Your task to perform on an android device: delete the emails in spam in the gmail app Image 0: 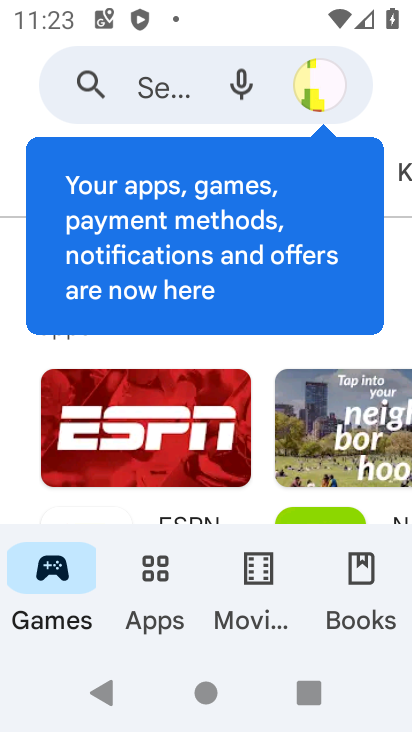
Step 0: press home button
Your task to perform on an android device: delete the emails in spam in the gmail app Image 1: 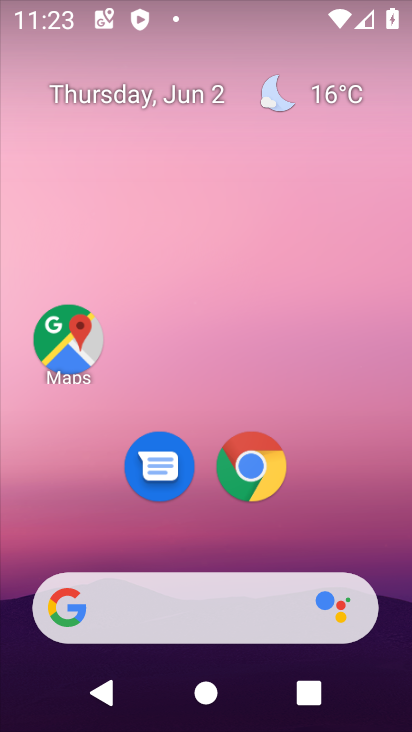
Step 1: drag from (213, 557) to (279, 219)
Your task to perform on an android device: delete the emails in spam in the gmail app Image 2: 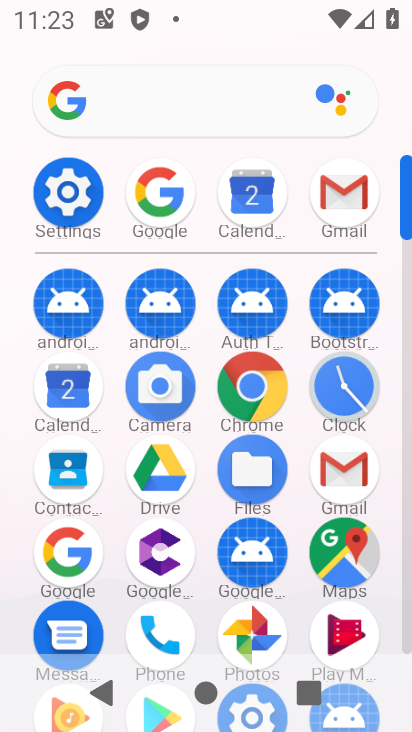
Step 2: click (315, 193)
Your task to perform on an android device: delete the emails in spam in the gmail app Image 3: 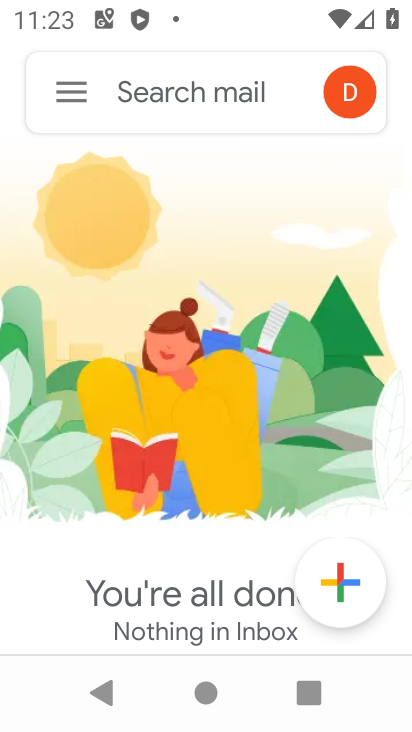
Step 3: click (64, 80)
Your task to perform on an android device: delete the emails in spam in the gmail app Image 4: 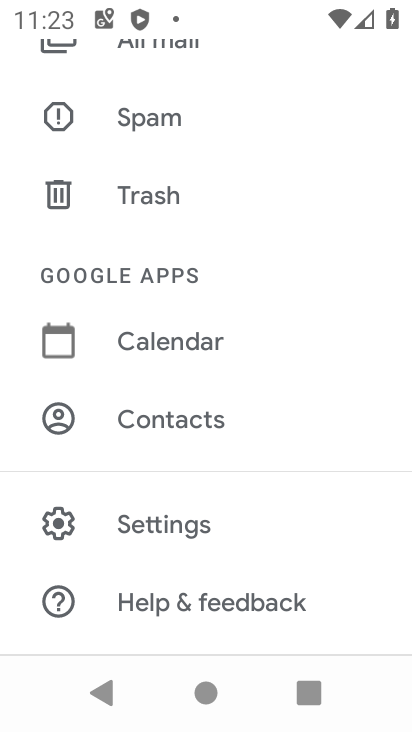
Step 4: click (196, 518)
Your task to perform on an android device: delete the emails in spam in the gmail app Image 5: 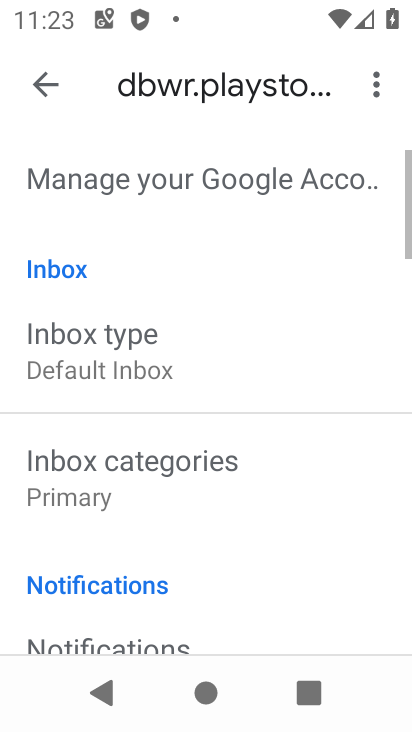
Step 5: drag from (239, 569) to (216, 290)
Your task to perform on an android device: delete the emails in spam in the gmail app Image 6: 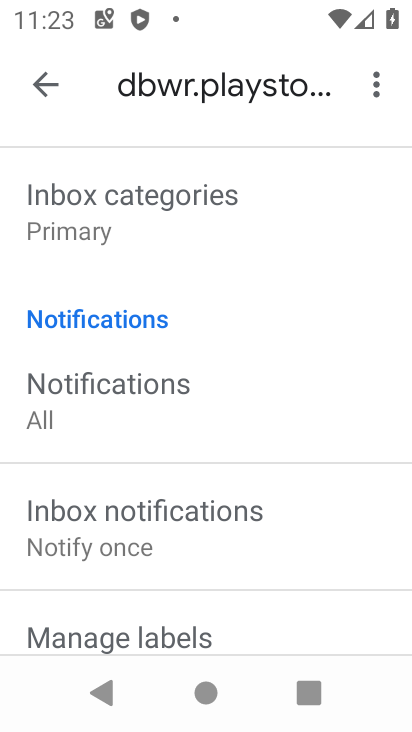
Step 6: drag from (210, 264) to (211, 474)
Your task to perform on an android device: delete the emails in spam in the gmail app Image 7: 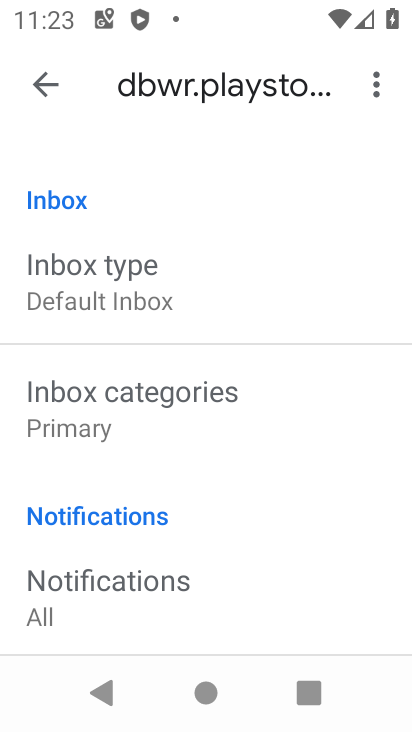
Step 7: click (50, 88)
Your task to perform on an android device: delete the emails in spam in the gmail app Image 8: 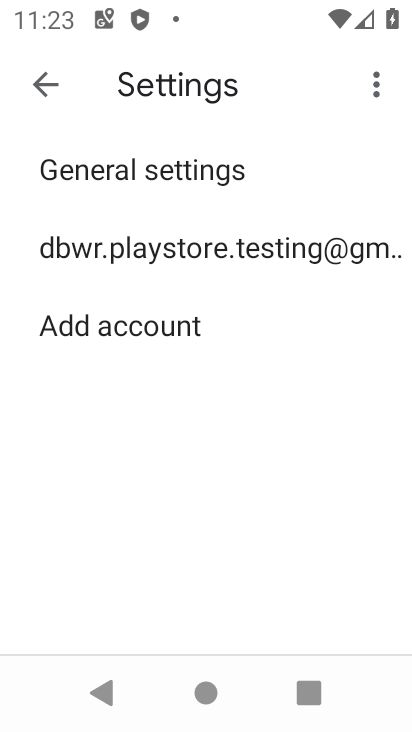
Step 8: click (50, 88)
Your task to perform on an android device: delete the emails in spam in the gmail app Image 9: 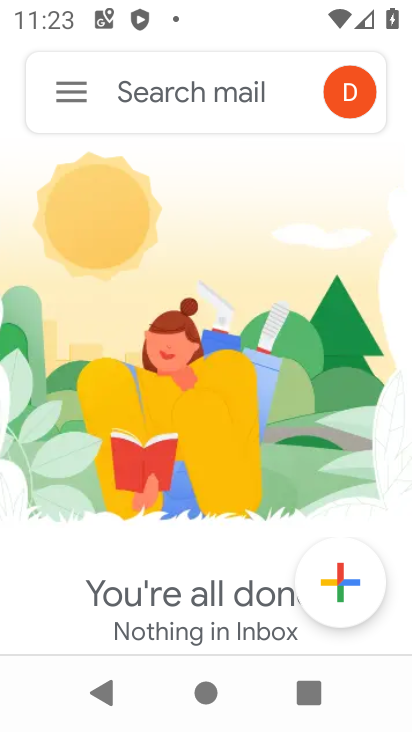
Step 9: click (50, 88)
Your task to perform on an android device: delete the emails in spam in the gmail app Image 10: 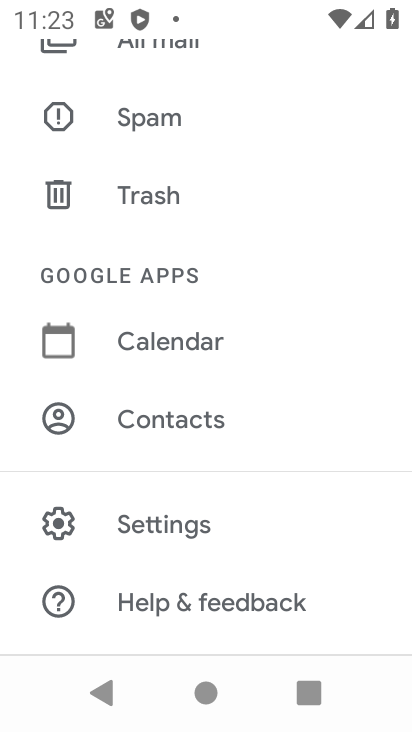
Step 10: click (199, 125)
Your task to perform on an android device: delete the emails in spam in the gmail app Image 11: 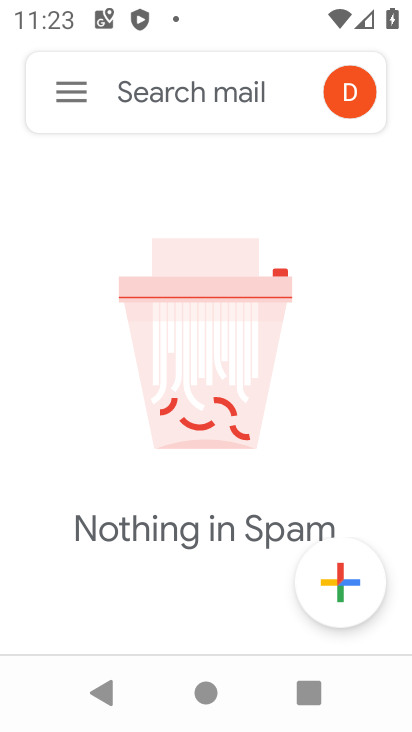
Step 11: task complete